Your task to perform on an android device: add a contact in the contacts app Image 0: 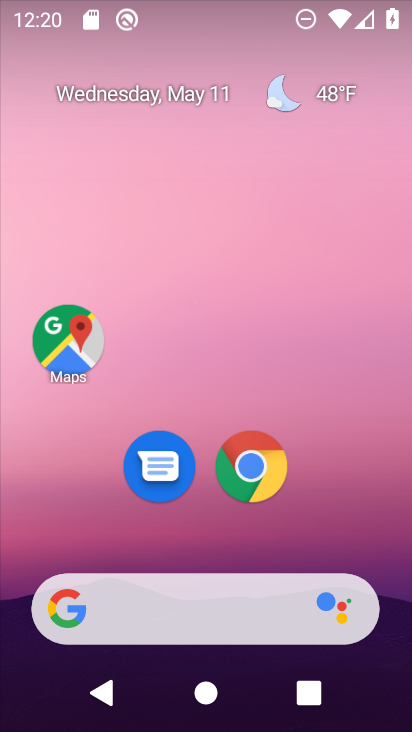
Step 0: drag from (202, 544) to (209, 32)
Your task to perform on an android device: add a contact in the contacts app Image 1: 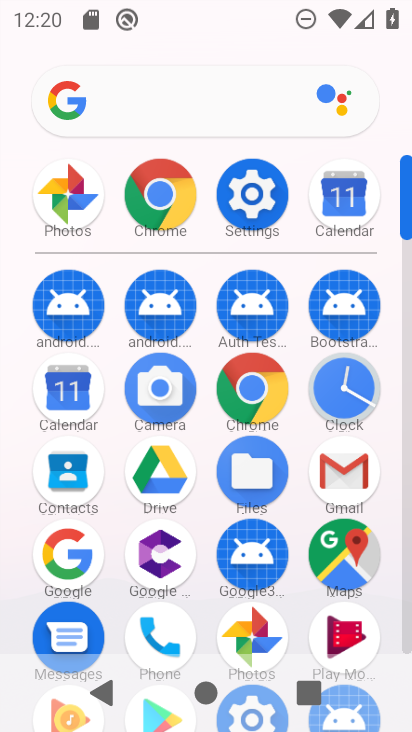
Step 1: click (66, 464)
Your task to perform on an android device: add a contact in the contacts app Image 2: 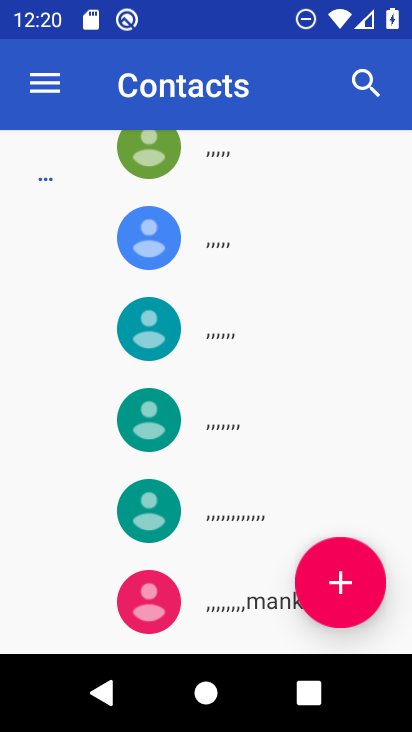
Step 2: click (344, 582)
Your task to perform on an android device: add a contact in the contacts app Image 3: 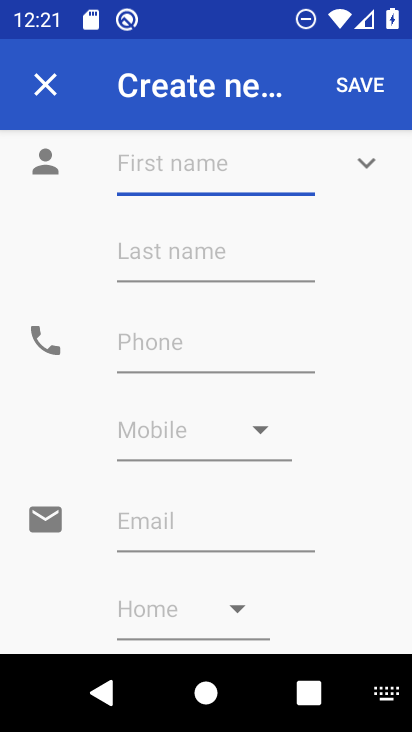
Step 3: type "mbgcf"
Your task to perform on an android device: add a contact in the contacts app Image 4: 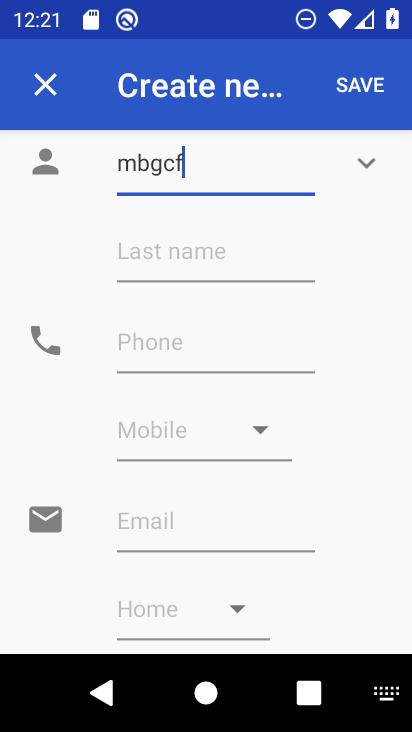
Step 4: click (357, 88)
Your task to perform on an android device: add a contact in the contacts app Image 5: 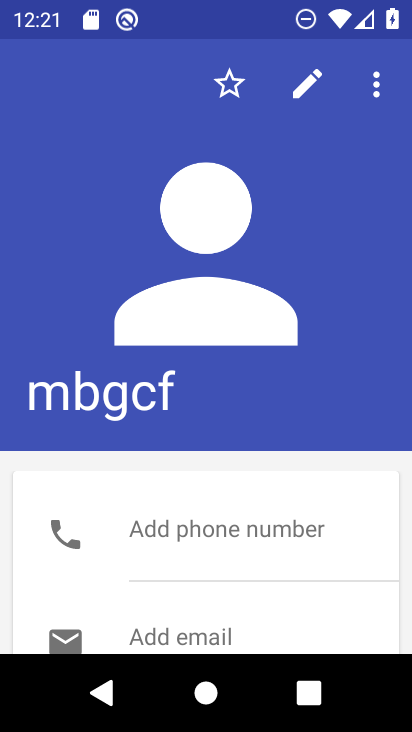
Step 5: task complete